Your task to perform on an android device: turn on location history Image 0: 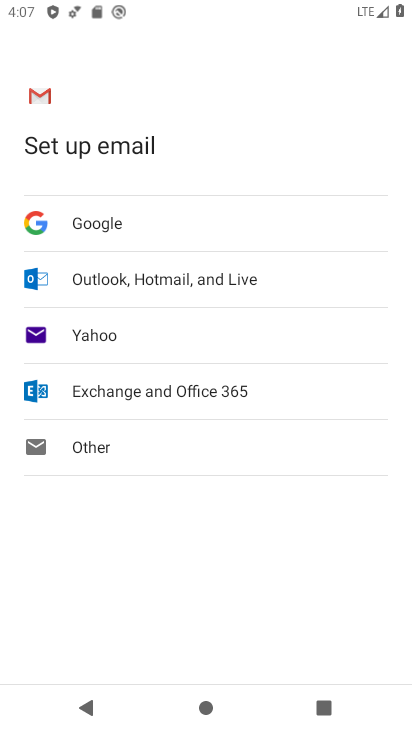
Step 0: press home button
Your task to perform on an android device: turn on location history Image 1: 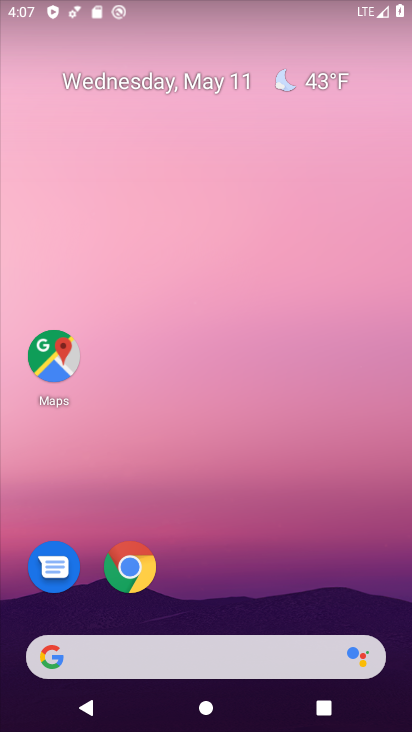
Step 1: drag from (240, 623) to (304, 57)
Your task to perform on an android device: turn on location history Image 2: 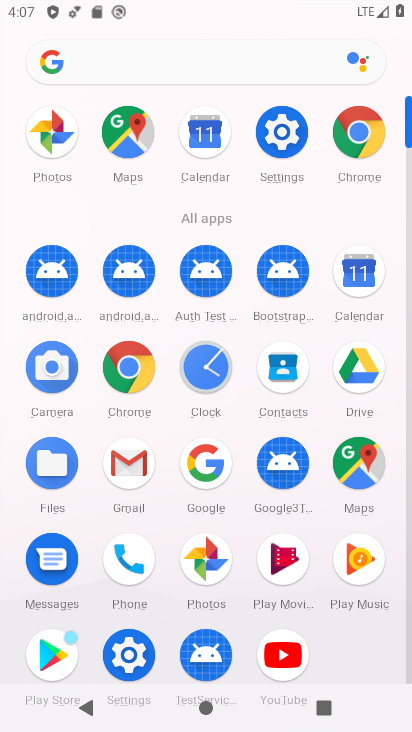
Step 2: click (297, 135)
Your task to perform on an android device: turn on location history Image 3: 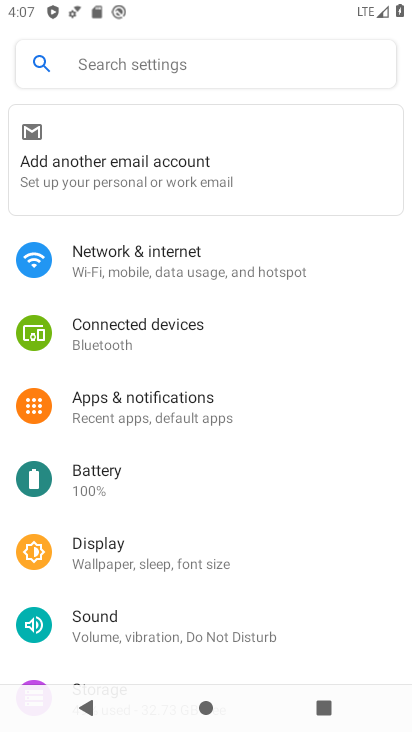
Step 3: drag from (192, 630) to (226, 153)
Your task to perform on an android device: turn on location history Image 4: 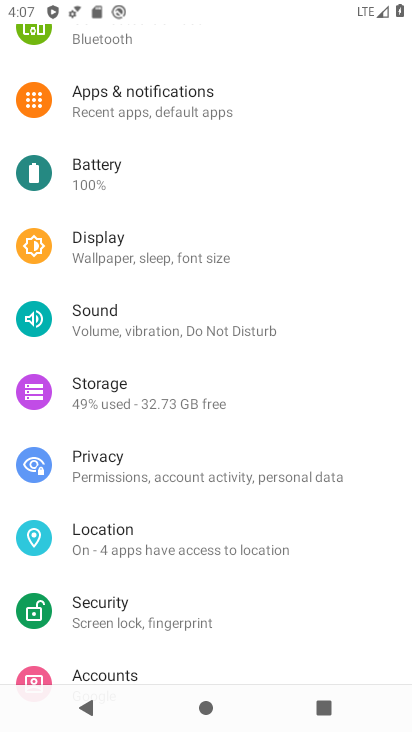
Step 4: click (166, 527)
Your task to perform on an android device: turn on location history Image 5: 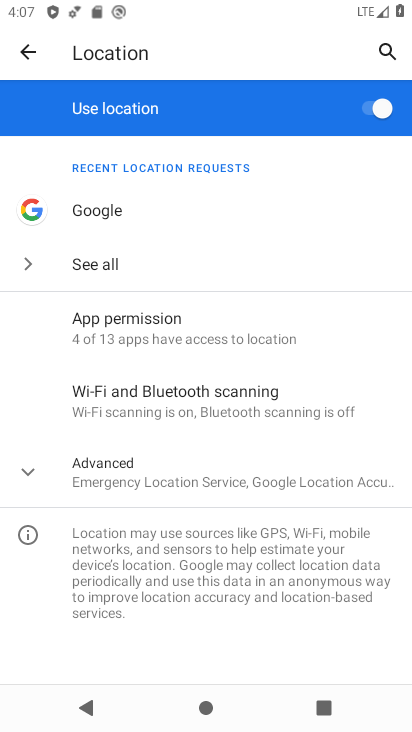
Step 5: click (253, 476)
Your task to perform on an android device: turn on location history Image 6: 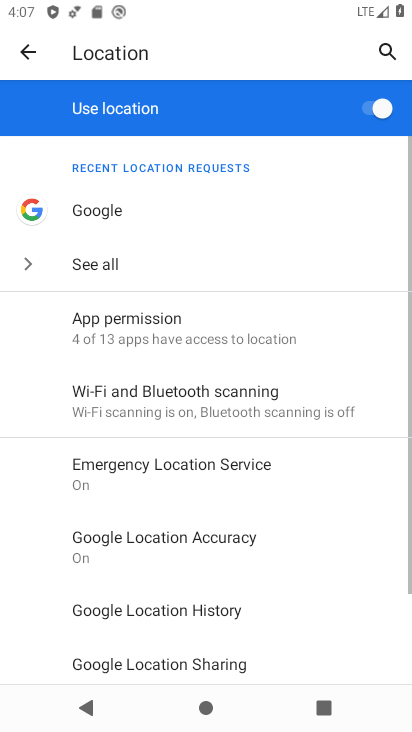
Step 6: drag from (262, 639) to (326, 266)
Your task to perform on an android device: turn on location history Image 7: 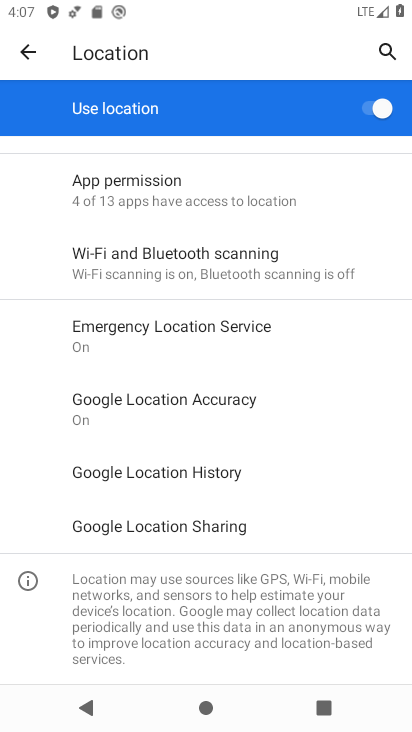
Step 7: click (245, 472)
Your task to perform on an android device: turn on location history Image 8: 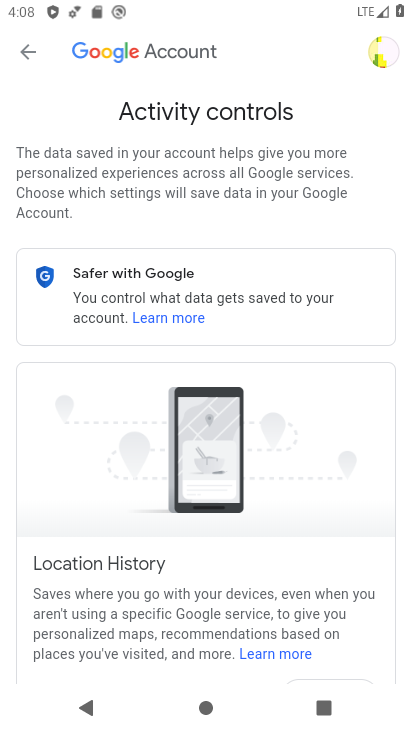
Step 8: drag from (261, 610) to (289, 159)
Your task to perform on an android device: turn on location history Image 9: 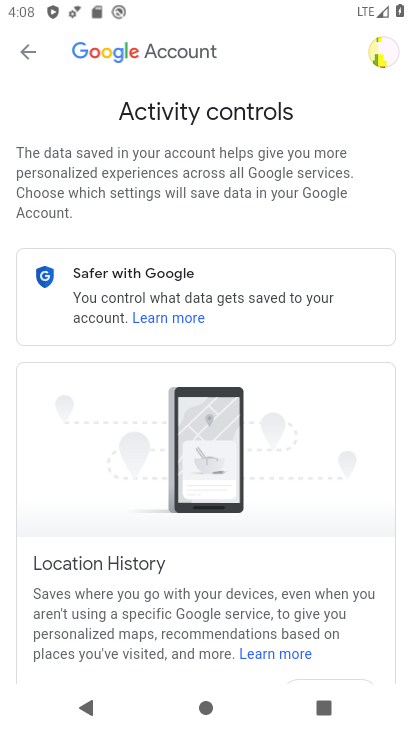
Step 9: drag from (265, 587) to (352, 166)
Your task to perform on an android device: turn on location history Image 10: 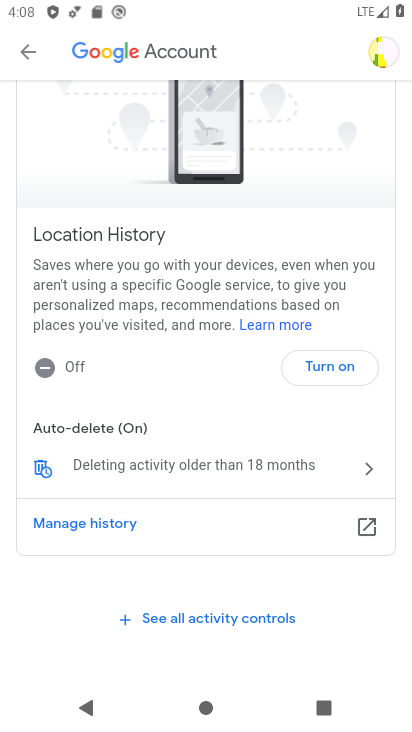
Step 10: click (354, 379)
Your task to perform on an android device: turn on location history Image 11: 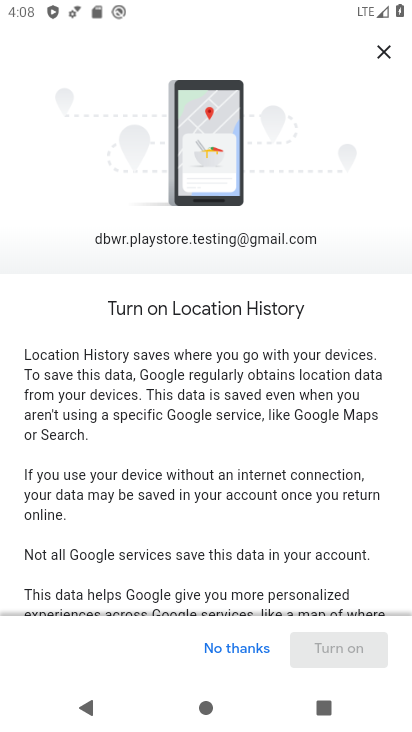
Step 11: drag from (288, 571) to (325, 135)
Your task to perform on an android device: turn on location history Image 12: 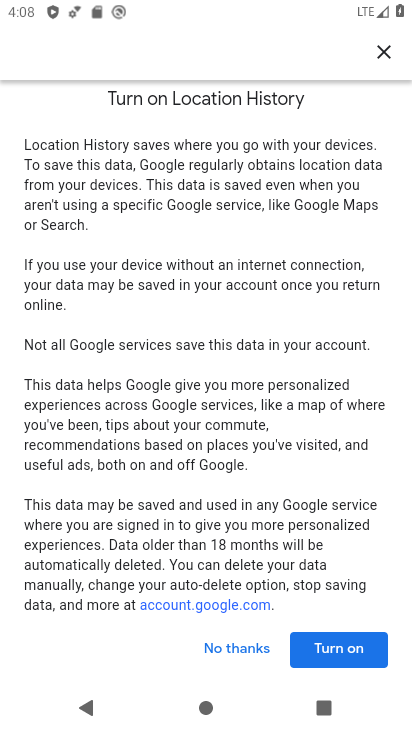
Step 12: click (320, 657)
Your task to perform on an android device: turn on location history Image 13: 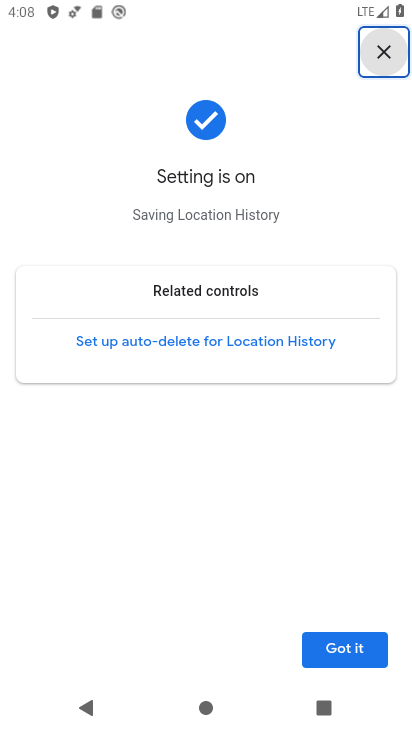
Step 13: click (346, 653)
Your task to perform on an android device: turn on location history Image 14: 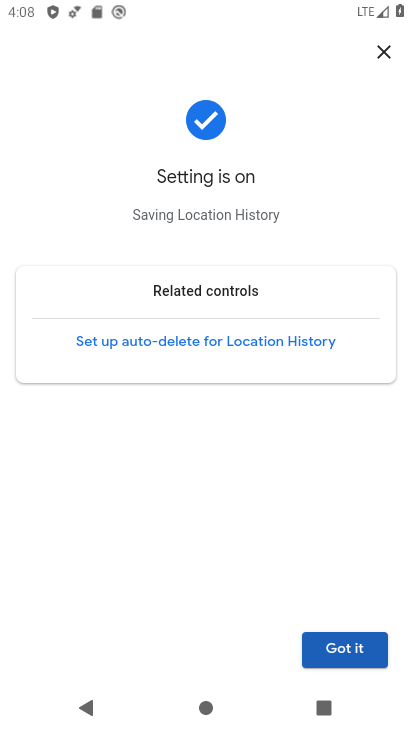
Step 14: click (379, 658)
Your task to perform on an android device: turn on location history Image 15: 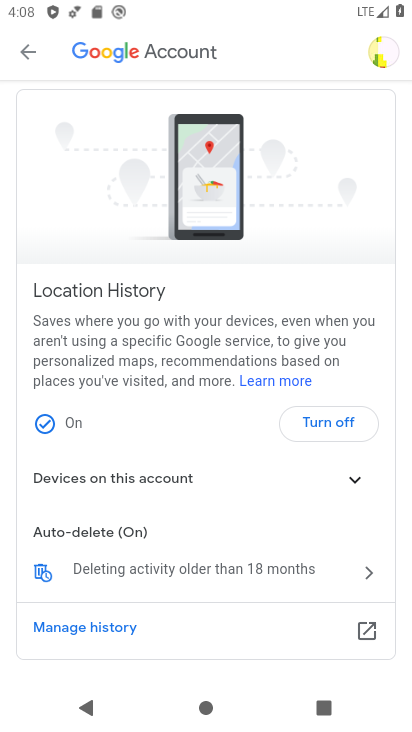
Step 15: task complete